Your task to perform on an android device: Go to internet settings Image 0: 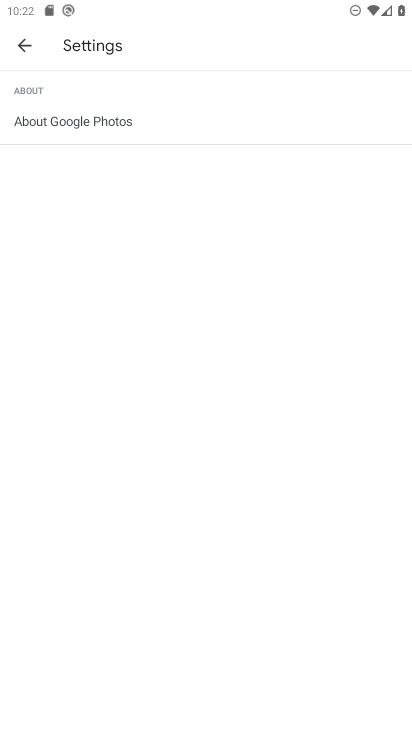
Step 0: press home button
Your task to perform on an android device: Go to internet settings Image 1: 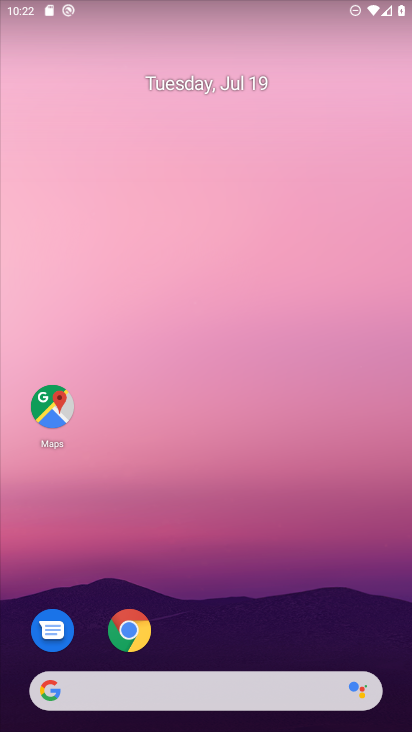
Step 1: drag from (221, 644) to (258, 153)
Your task to perform on an android device: Go to internet settings Image 2: 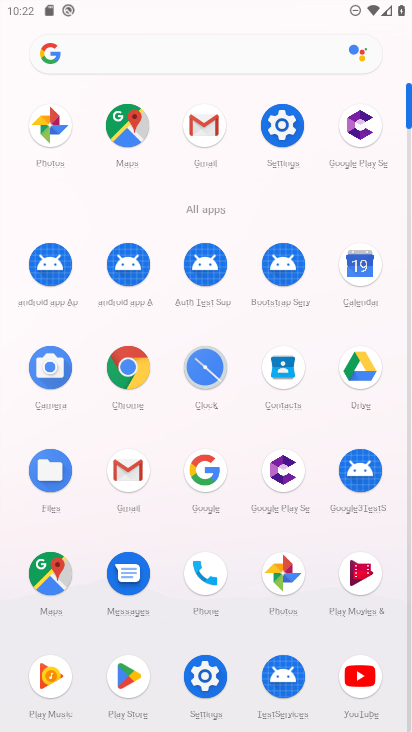
Step 2: click (294, 129)
Your task to perform on an android device: Go to internet settings Image 3: 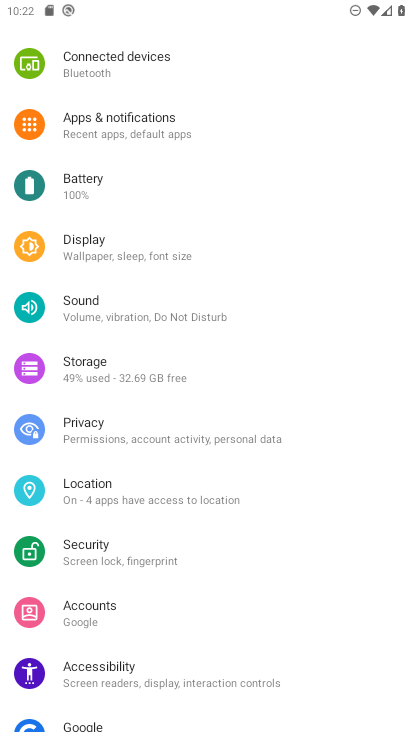
Step 3: drag from (209, 201) to (215, 481)
Your task to perform on an android device: Go to internet settings Image 4: 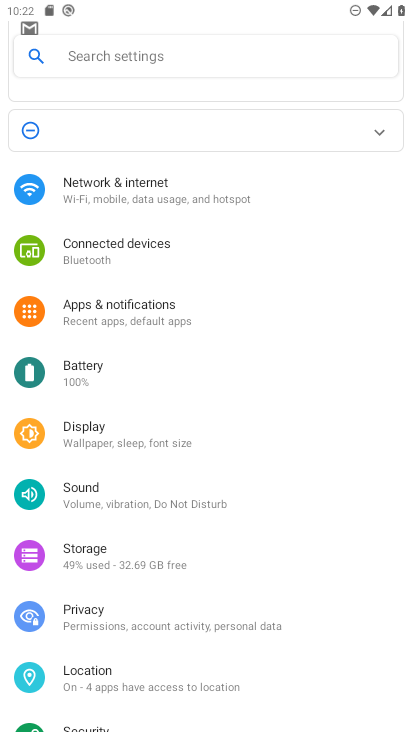
Step 4: click (147, 182)
Your task to perform on an android device: Go to internet settings Image 5: 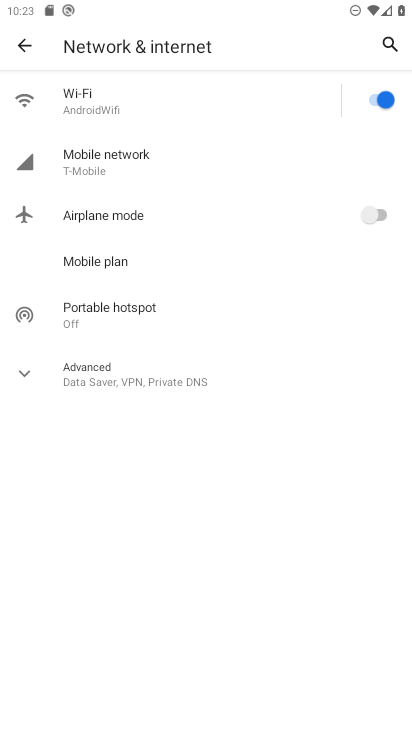
Step 5: task complete